Your task to perform on an android device: Open the calendar app, open the side menu, and click the "Day" option Image 0: 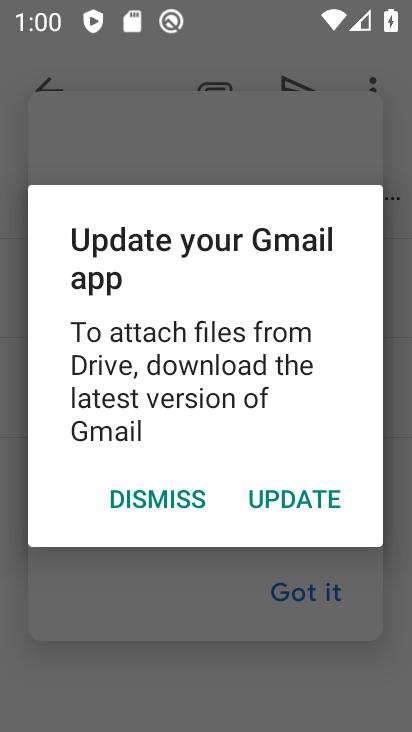
Step 0: press home button
Your task to perform on an android device: Open the calendar app, open the side menu, and click the "Day" option Image 1: 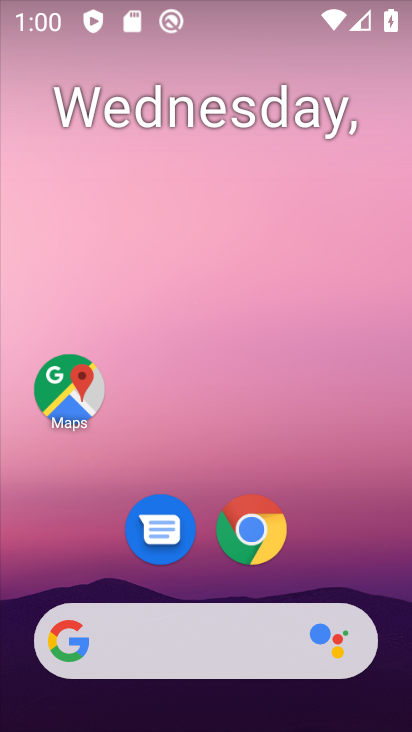
Step 1: click (185, 122)
Your task to perform on an android device: Open the calendar app, open the side menu, and click the "Day" option Image 2: 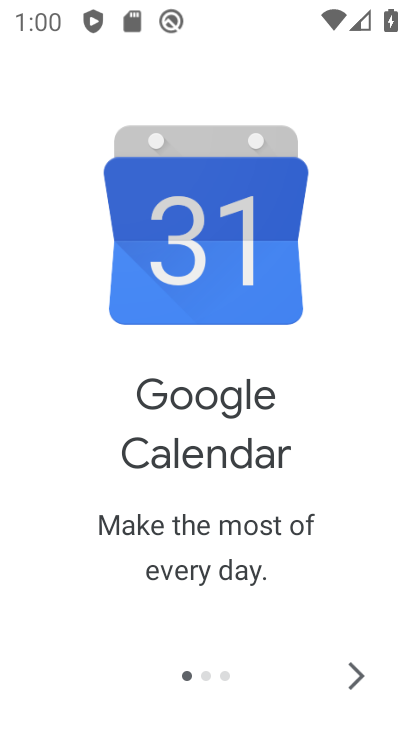
Step 2: click (346, 665)
Your task to perform on an android device: Open the calendar app, open the side menu, and click the "Day" option Image 3: 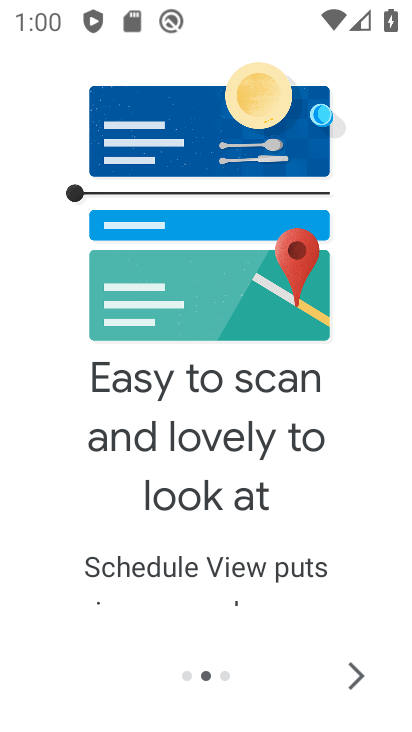
Step 3: click (346, 665)
Your task to perform on an android device: Open the calendar app, open the side menu, and click the "Day" option Image 4: 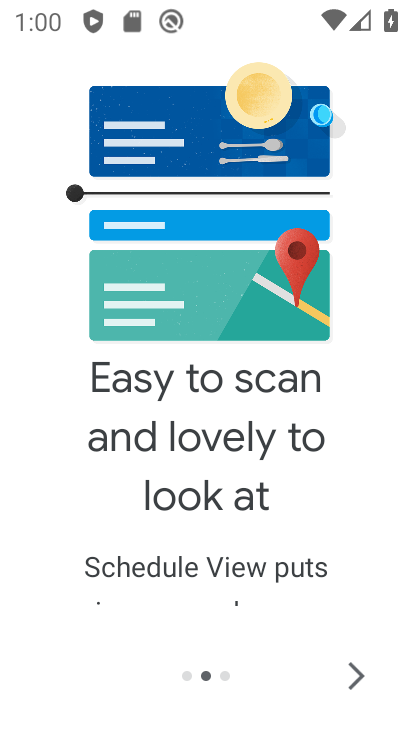
Step 4: click (346, 665)
Your task to perform on an android device: Open the calendar app, open the side menu, and click the "Day" option Image 5: 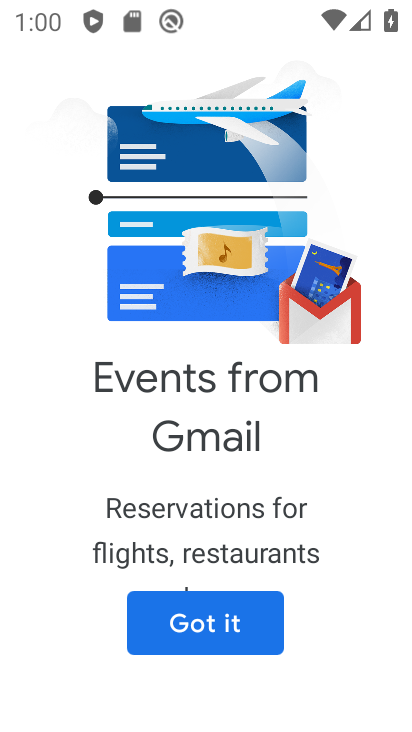
Step 5: click (208, 656)
Your task to perform on an android device: Open the calendar app, open the side menu, and click the "Day" option Image 6: 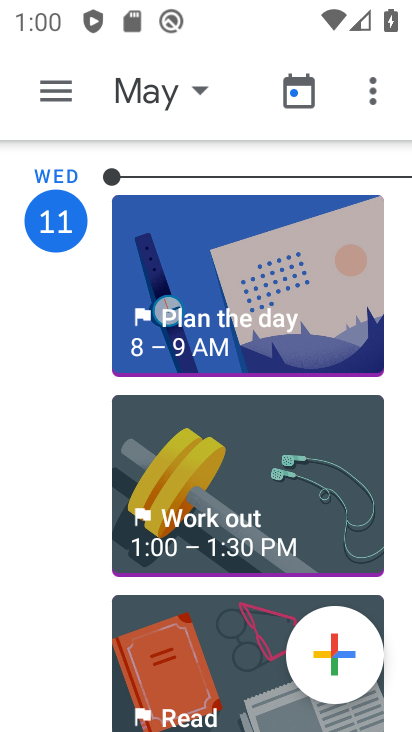
Step 6: click (58, 93)
Your task to perform on an android device: Open the calendar app, open the side menu, and click the "Day" option Image 7: 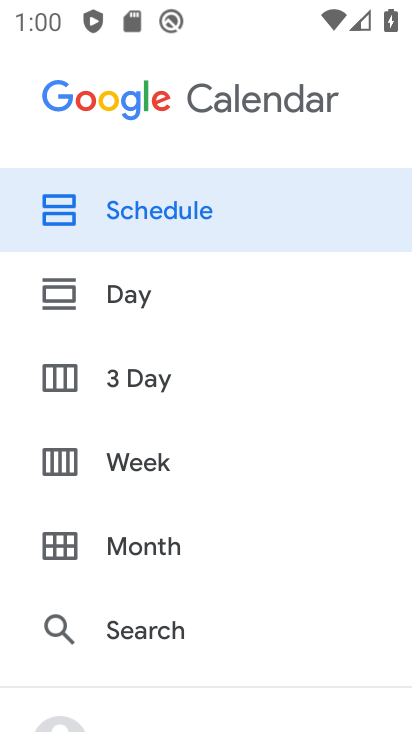
Step 7: click (159, 284)
Your task to perform on an android device: Open the calendar app, open the side menu, and click the "Day" option Image 8: 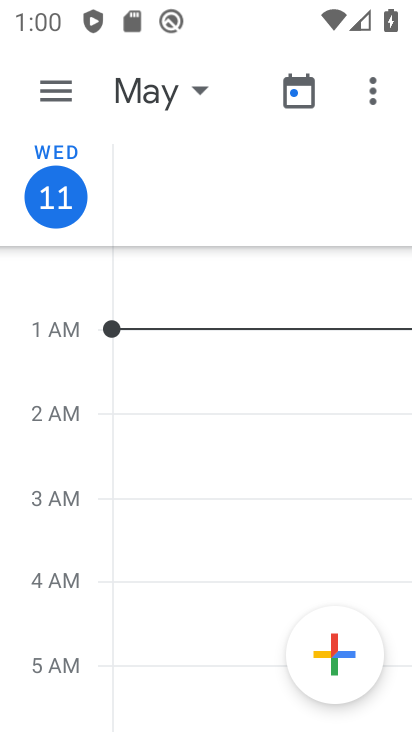
Step 8: task complete